Your task to perform on an android device: make emails show in primary in the gmail app Image 0: 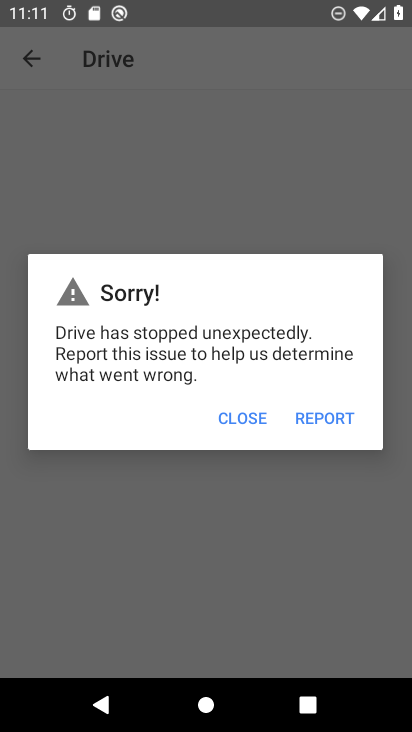
Step 0: press home button
Your task to perform on an android device: make emails show in primary in the gmail app Image 1: 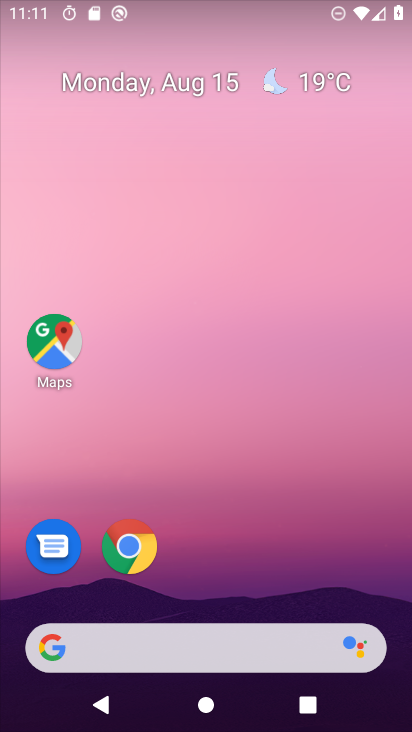
Step 1: drag from (229, 582) to (229, 92)
Your task to perform on an android device: make emails show in primary in the gmail app Image 2: 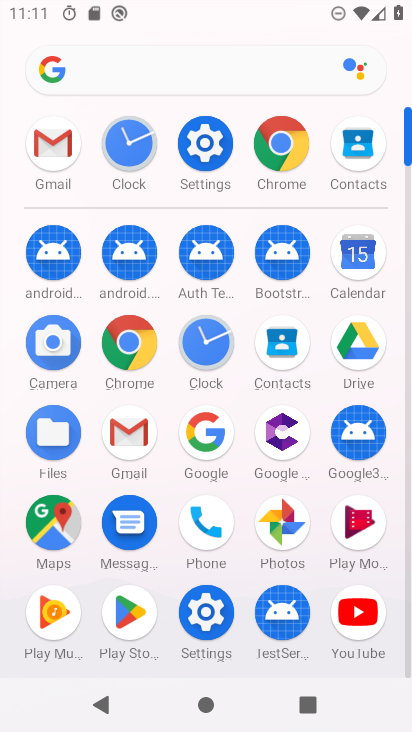
Step 2: click (129, 433)
Your task to perform on an android device: make emails show in primary in the gmail app Image 3: 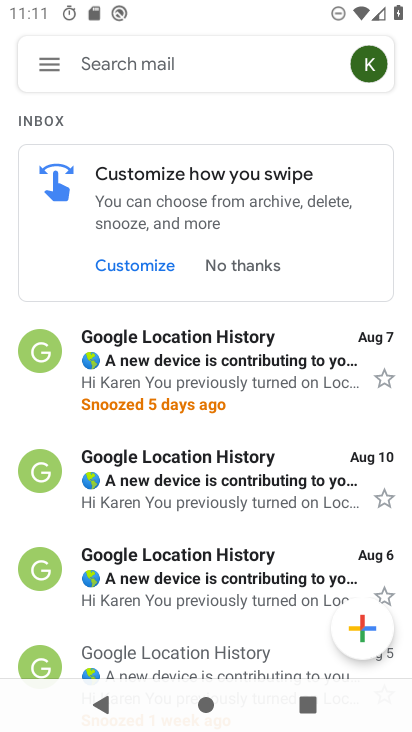
Step 3: click (44, 72)
Your task to perform on an android device: make emails show in primary in the gmail app Image 4: 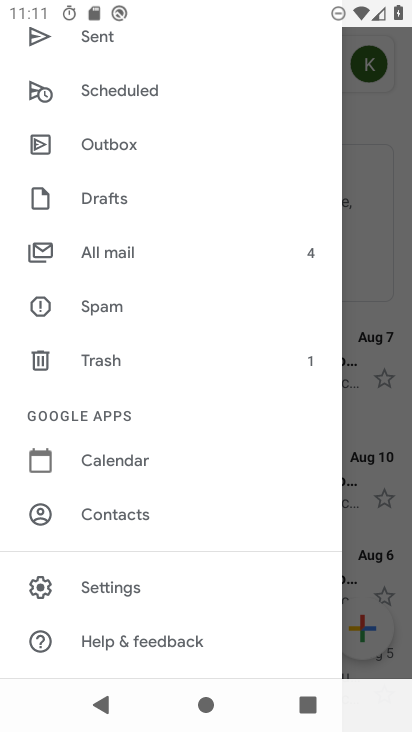
Step 4: click (128, 586)
Your task to perform on an android device: make emails show in primary in the gmail app Image 5: 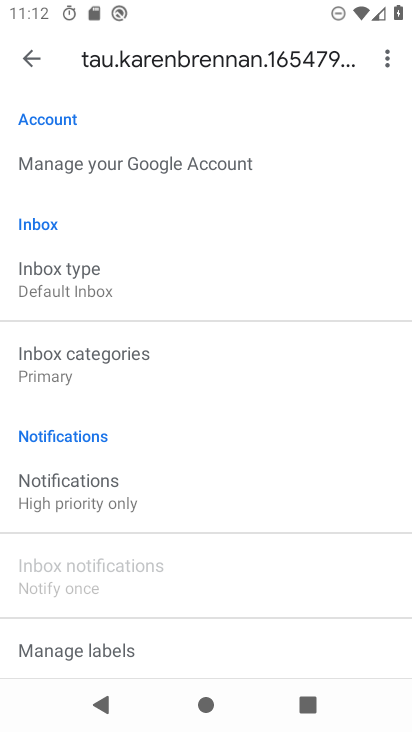
Step 5: task complete